Your task to perform on an android device: When is my next meeting? Image 0: 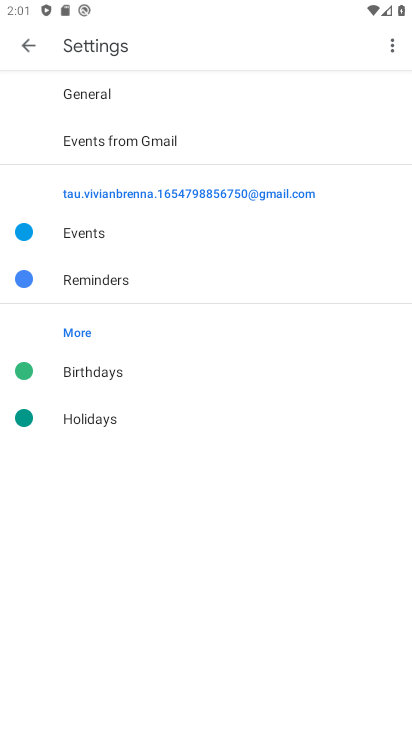
Step 0: press back button
Your task to perform on an android device: When is my next meeting? Image 1: 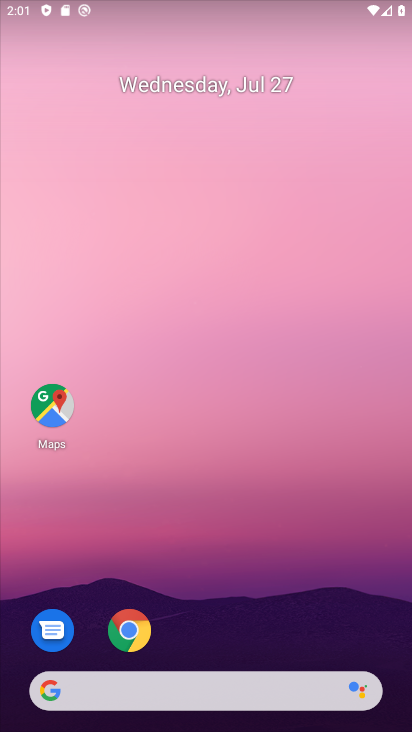
Step 1: drag from (178, 581) to (136, 123)
Your task to perform on an android device: When is my next meeting? Image 2: 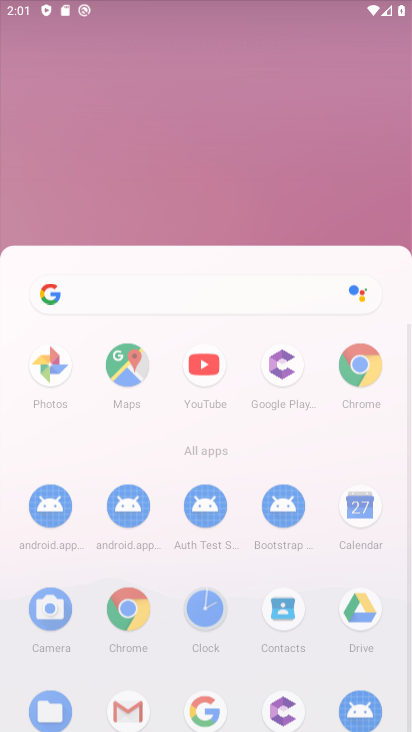
Step 2: drag from (213, 531) to (206, 166)
Your task to perform on an android device: When is my next meeting? Image 3: 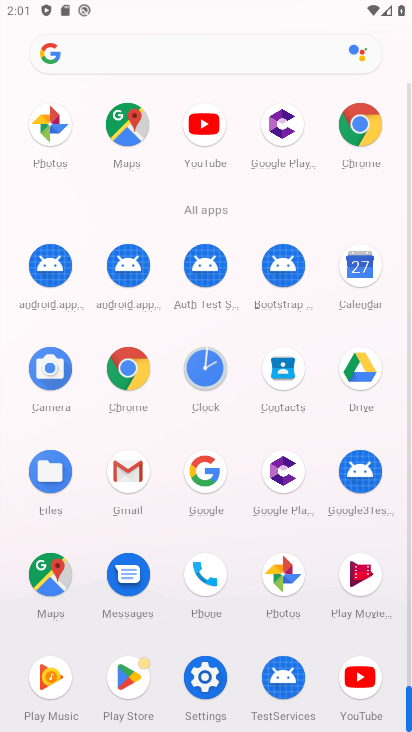
Step 3: click (352, 275)
Your task to perform on an android device: When is my next meeting? Image 4: 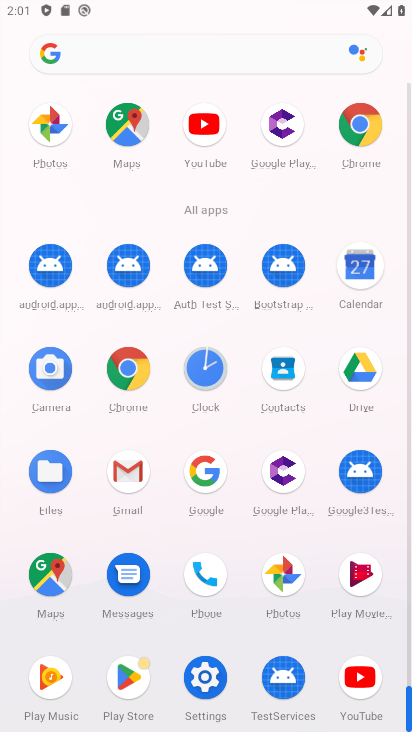
Step 4: click (352, 275)
Your task to perform on an android device: When is my next meeting? Image 5: 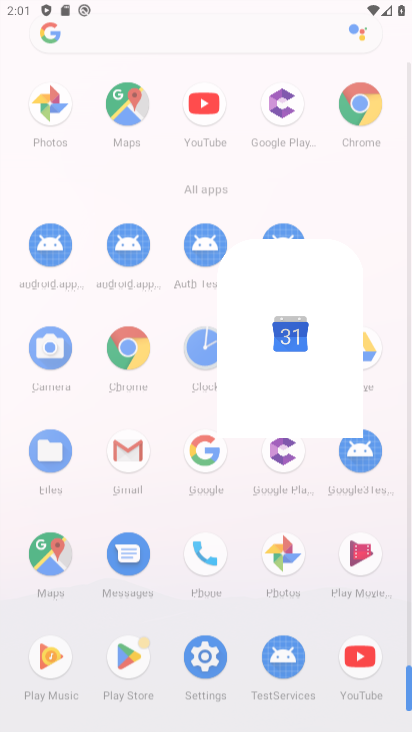
Step 5: click (352, 275)
Your task to perform on an android device: When is my next meeting? Image 6: 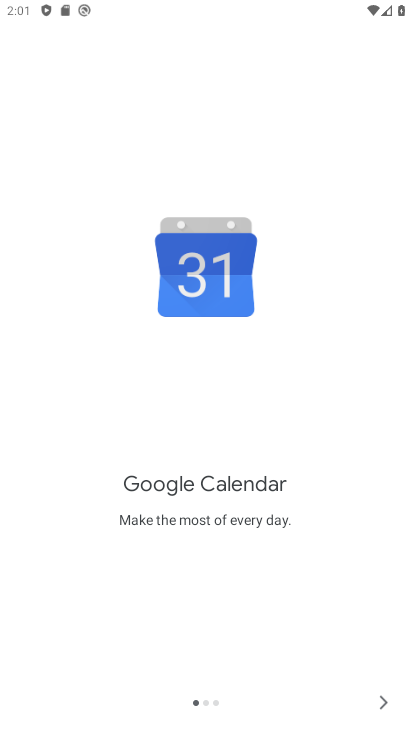
Step 6: click (373, 696)
Your task to perform on an android device: When is my next meeting? Image 7: 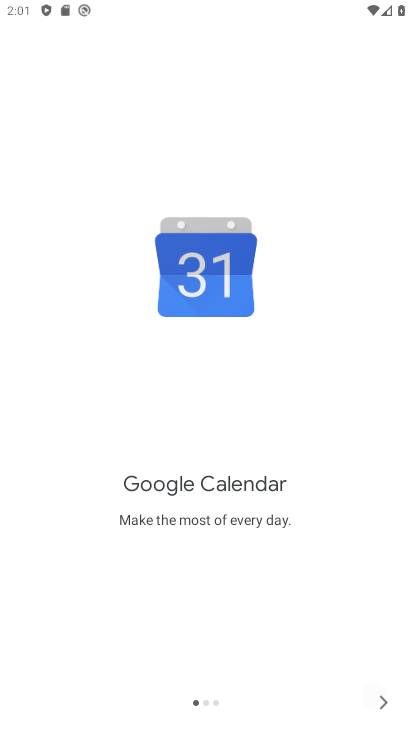
Step 7: click (373, 696)
Your task to perform on an android device: When is my next meeting? Image 8: 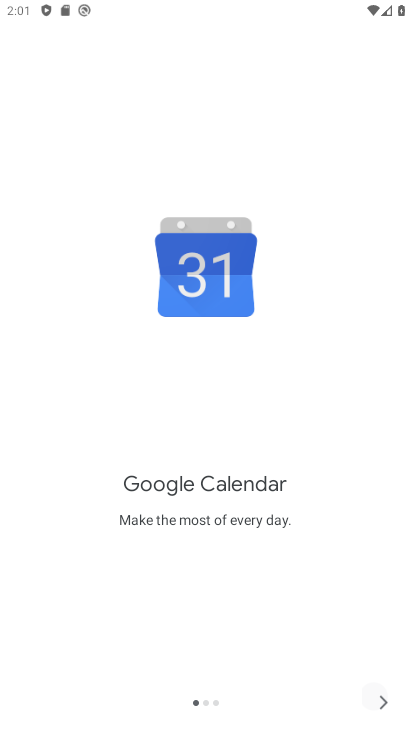
Step 8: click (373, 696)
Your task to perform on an android device: When is my next meeting? Image 9: 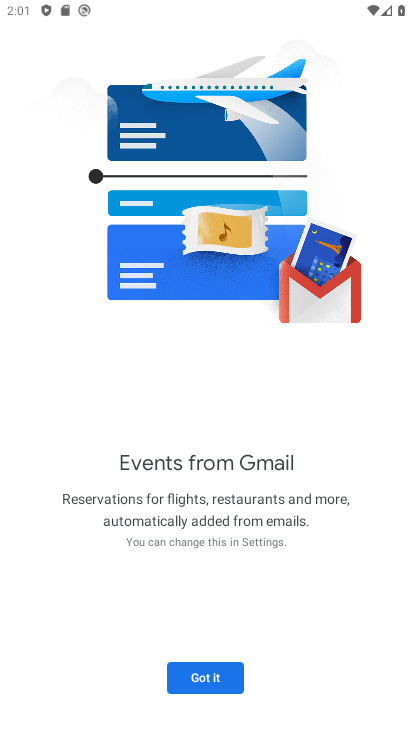
Step 9: click (203, 688)
Your task to perform on an android device: When is my next meeting? Image 10: 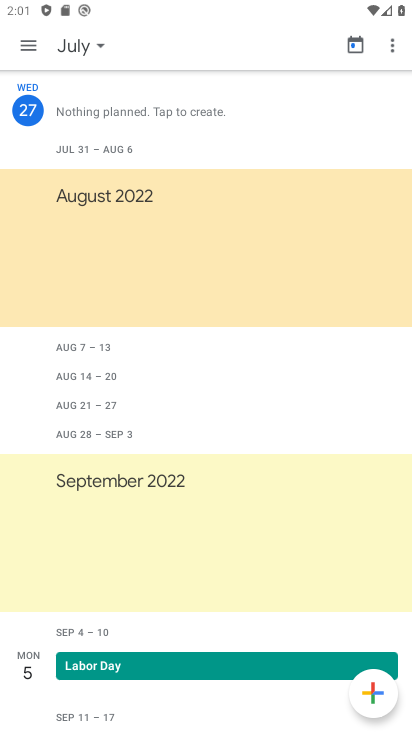
Step 10: click (97, 44)
Your task to perform on an android device: When is my next meeting? Image 11: 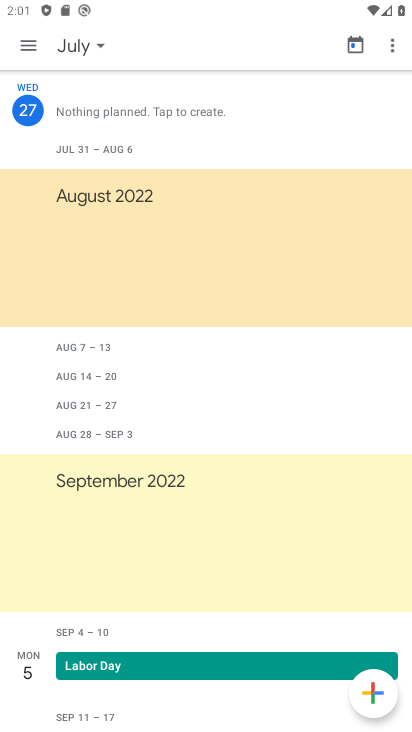
Step 11: click (95, 41)
Your task to perform on an android device: When is my next meeting? Image 12: 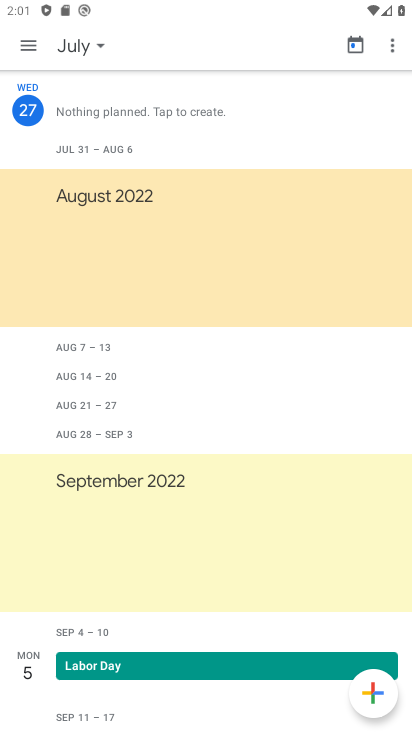
Step 12: click (97, 49)
Your task to perform on an android device: When is my next meeting? Image 13: 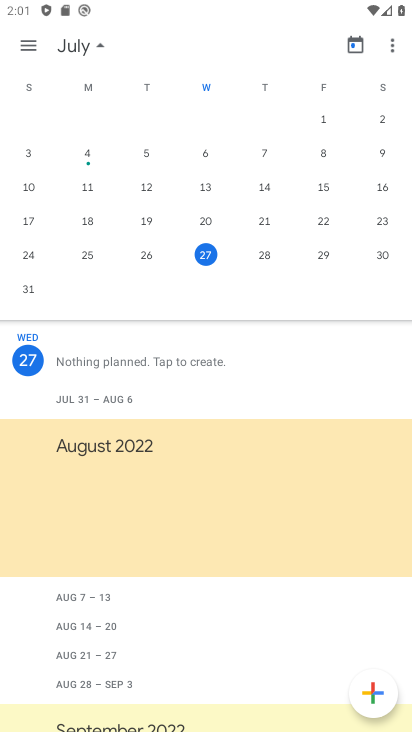
Step 13: click (312, 252)
Your task to perform on an android device: When is my next meeting? Image 14: 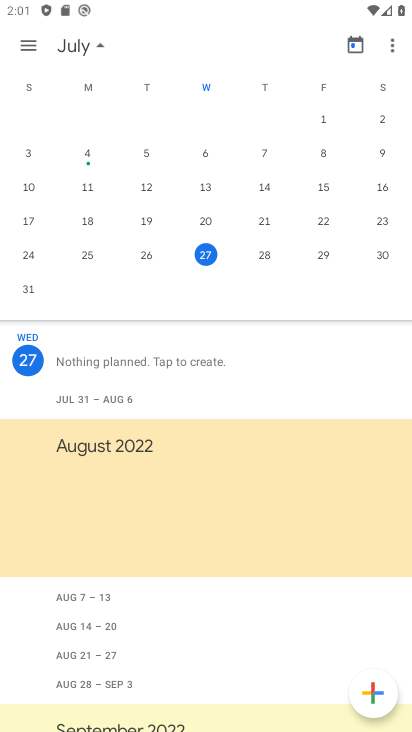
Step 14: click (315, 253)
Your task to perform on an android device: When is my next meeting? Image 15: 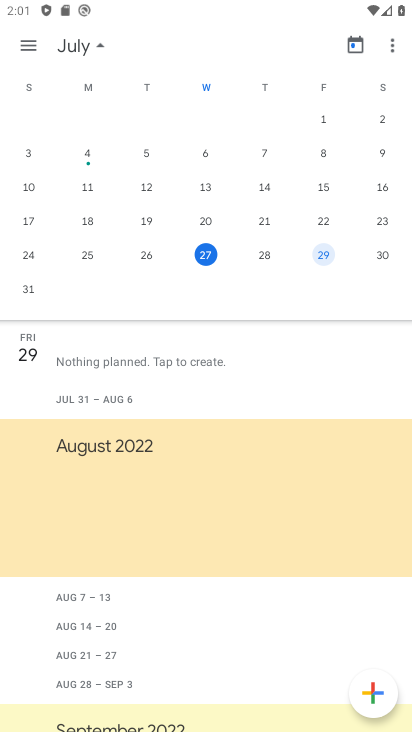
Step 15: task complete